Your task to perform on an android device: Open the calendar and show me this week's events? Image 0: 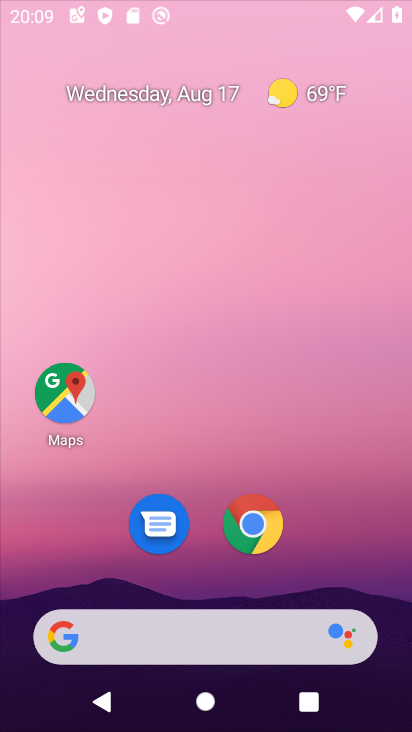
Step 0: click (369, 31)
Your task to perform on an android device: Open the calendar and show me this week's events? Image 1: 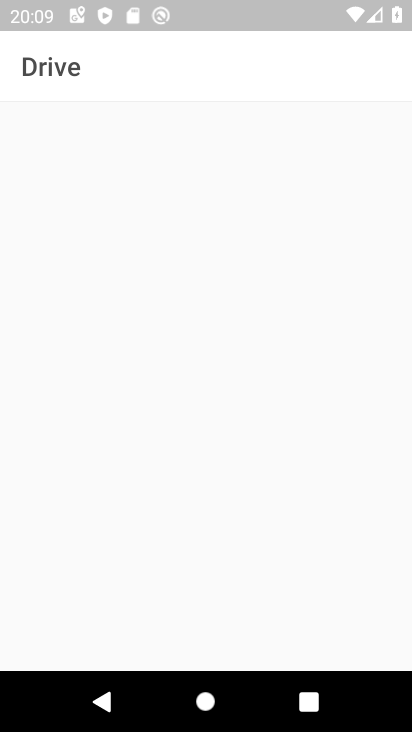
Step 1: press home button
Your task to perform on an android device: Open the calendar and show me this week's events? Image 2: 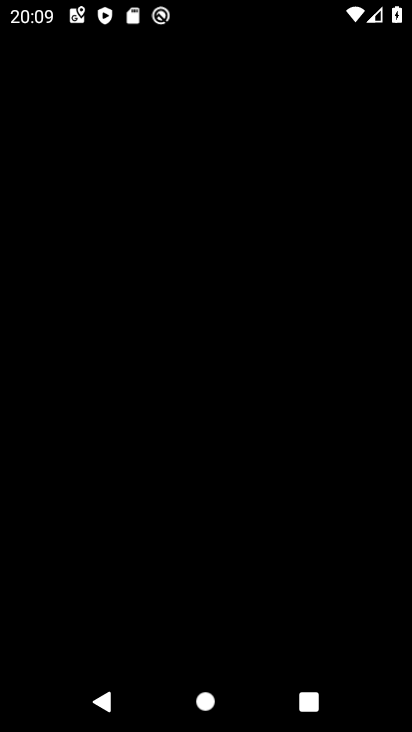
Step 2: press home button
Your task to perform on an android device: Open the calendar and show me this week's events? Image 3: 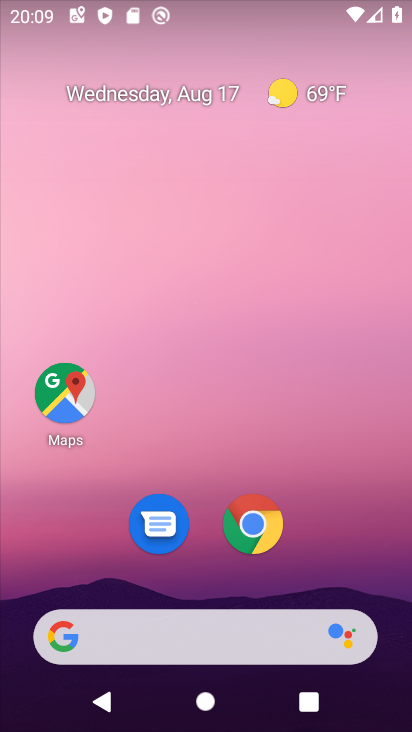
Step 3: drag from (327, 556) to (354, 42)
Your task to perform on an android device: Open the calendar and show me this week's events? Image 4: 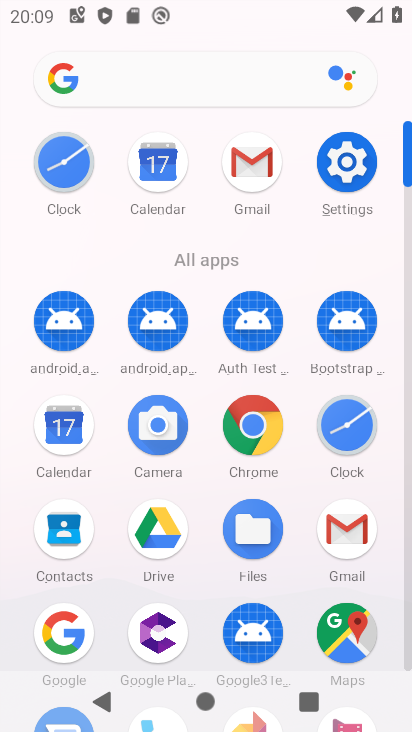
Step 4: click (160, 165)
Your task to perform on an android device: Open the calendar and show me this week's events? Image 5: 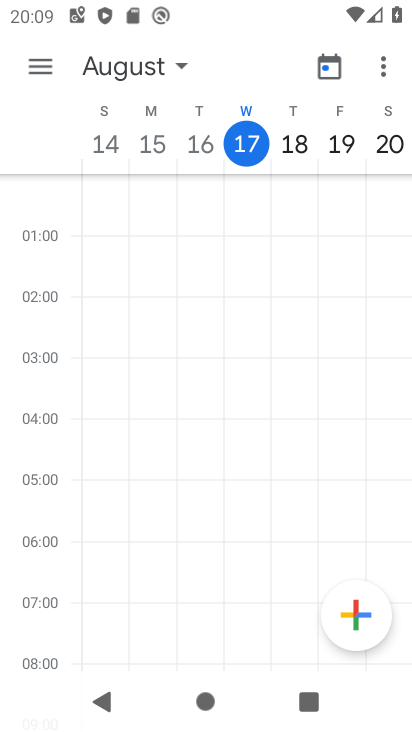
Step 5: task complete